Your task to perform on an android device: check android version Image 0: 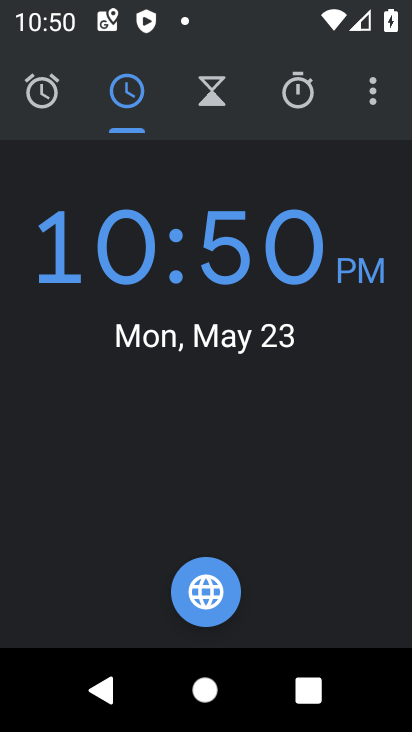
Step 0: press home button
Your task to perform on an android device: check android version Image 1: 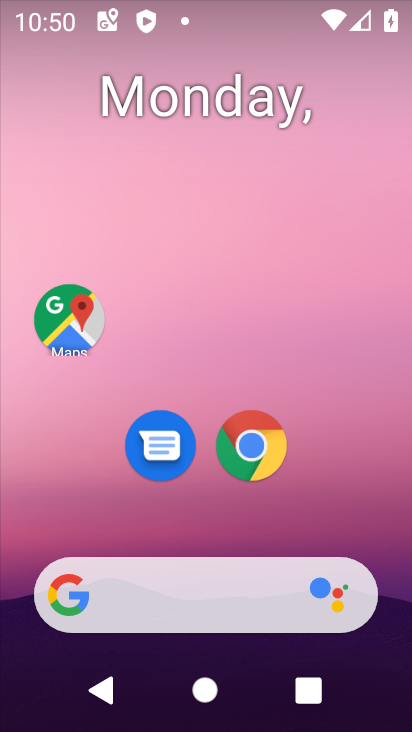
Step 1: drag from (406, 318) to (341, 29)
Your task to perform on an android device: check android version Image 2: 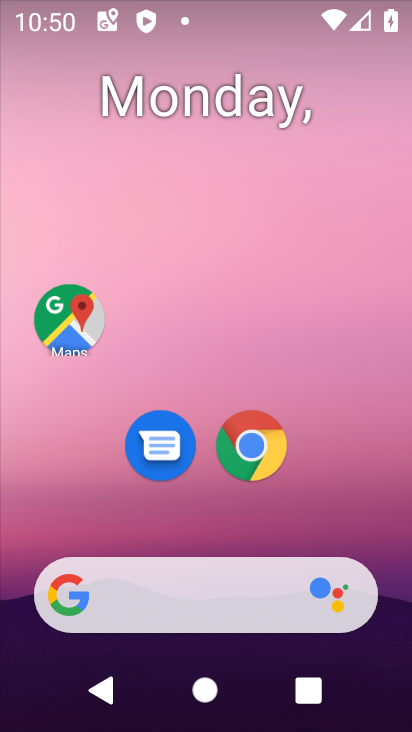
Step 2: drag from (209, 513) to (376, 1)
Your task to perform on an android device: check android version Image 3: 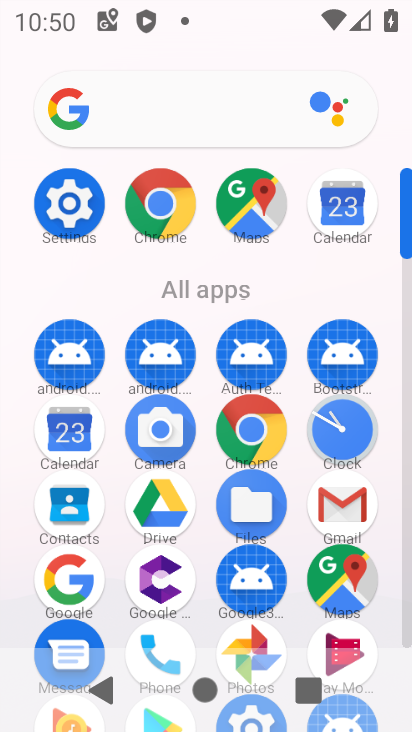
Step 3: click (67, 205)
Your task to perform on an android device: check android version Image 4: 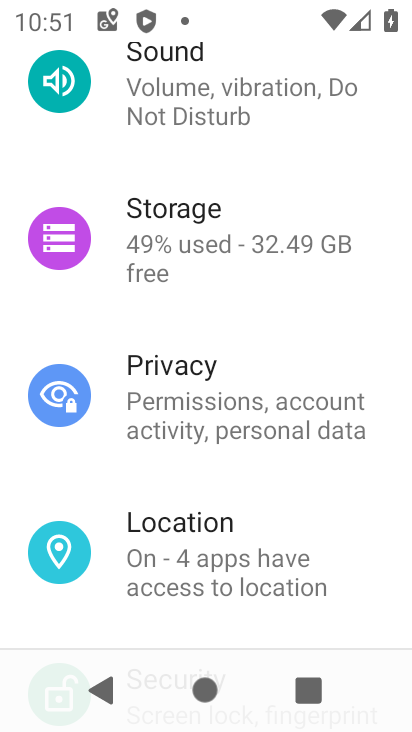
Step 4: drag from (182, 519) to (373, 12)
Your task to perform on an android device: check android version Image 5: 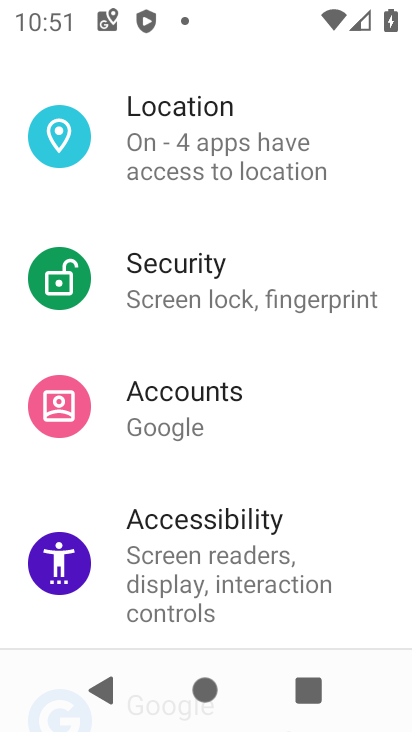
Step 5: drag from (232, 235) to (327, 139)
Your task to perform on an android device: check android version Image 6: 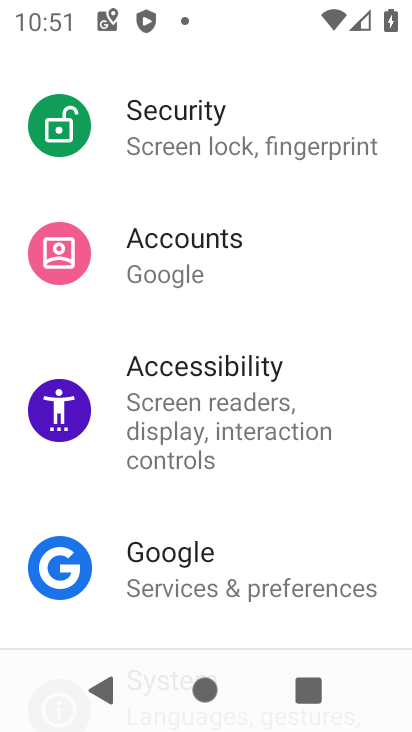
Step 6: drag from (284, 566) to (368, 165)
Your task to perform on an android device: check android version Image 7: 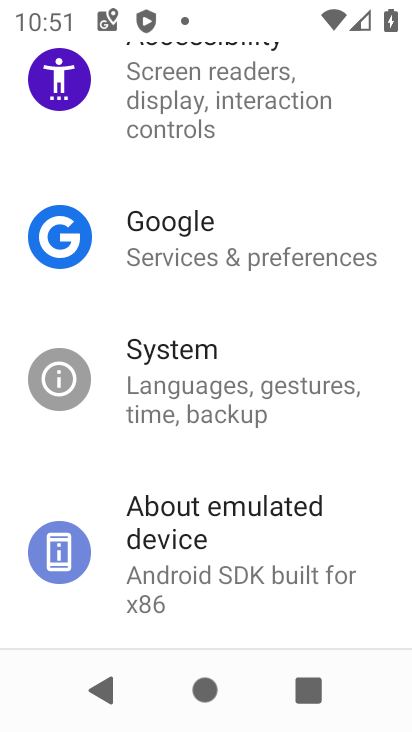
Step 7: drag from (208, 626) to (236, 211)
Your task to perform on an android device: check android version Image 8: 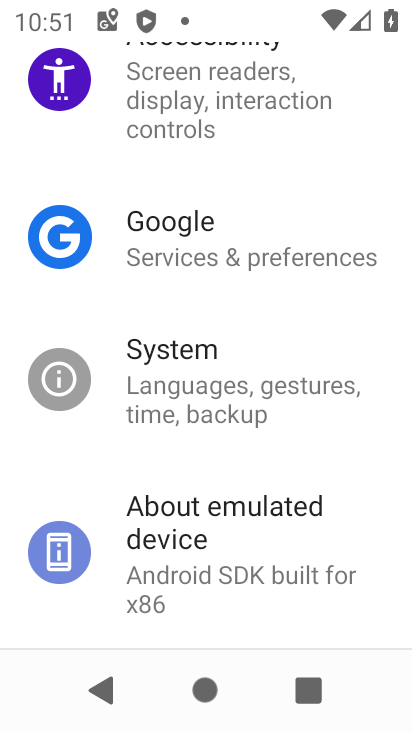
Step 8: click (193, 550)
Your task to perform on an android device: check android version Image 9: 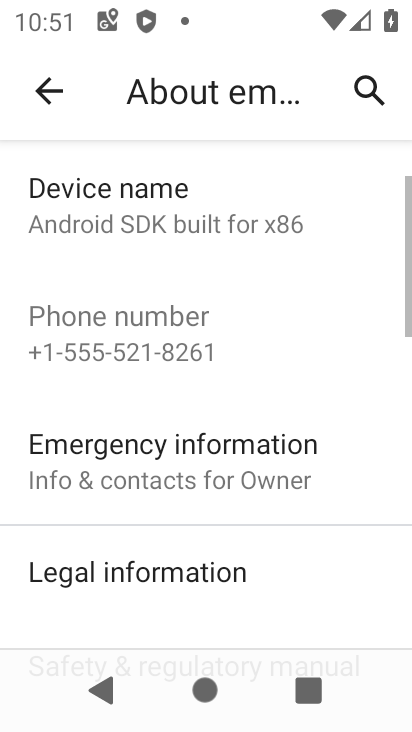
Step 9: task complete